Your task to perform on an android device: open chrome and create a bookmark for the current page Image 0: 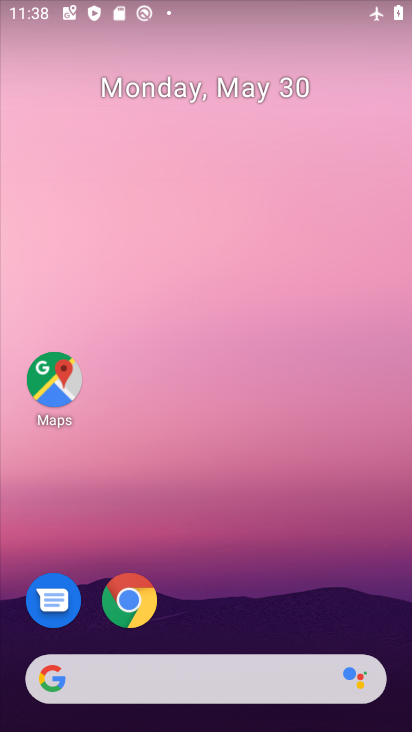
Step 0: click (134, 610)
Your task to perform on an android device: open chrome and create a bookmark for the current page Image 1: 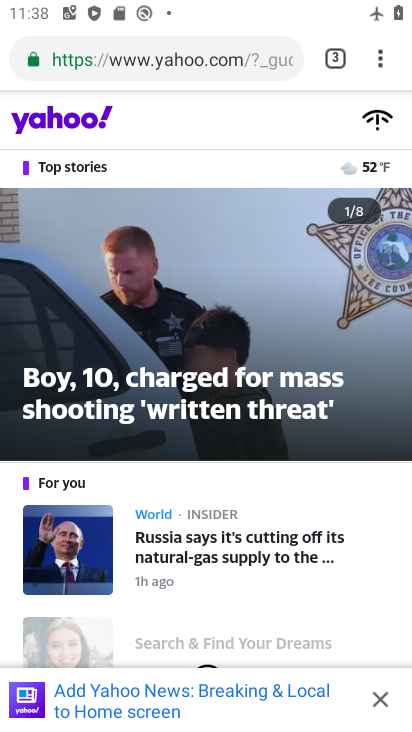
Step 1: click (381, 64)
Your task to perform on an android device: open chrome and create a bookmark for the current page Image 2: 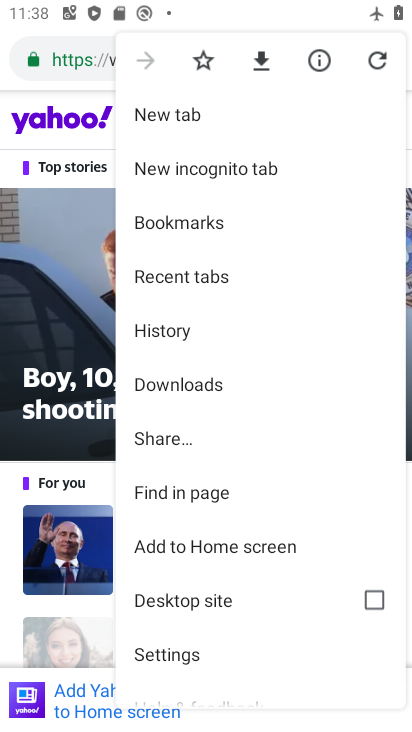
Step 2: click (202, 58)
Your task to perform on an android device: open chrome and create a bookmark for the current page Image 3: 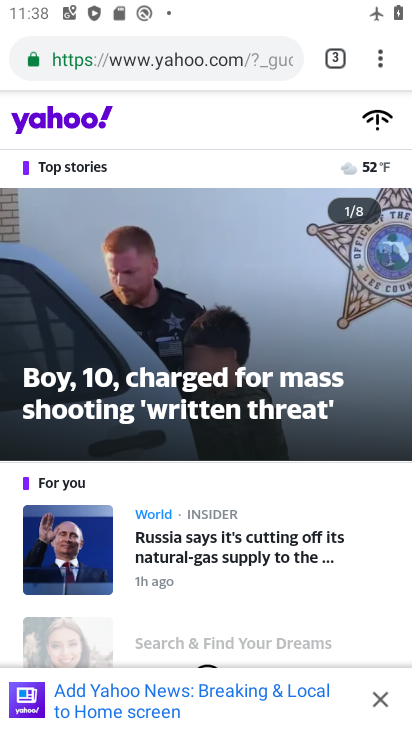
Step 3: task complete